Your task to perform on an android device: Open location settings Image 0: 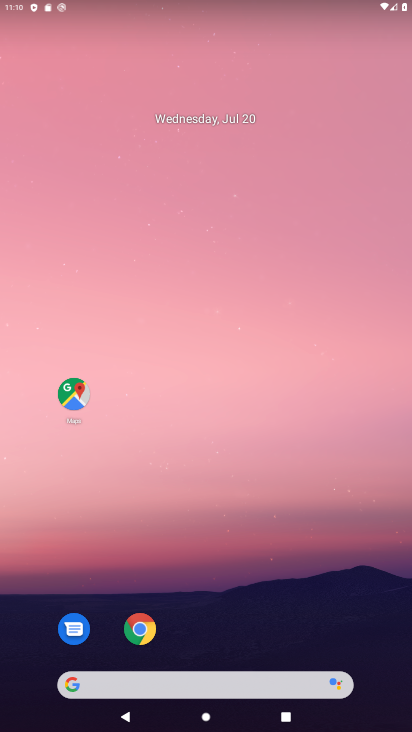
Step 0: drag from (221, 661) to (261, 3)
Your task to perform on an android device: Open location settings Image 1: 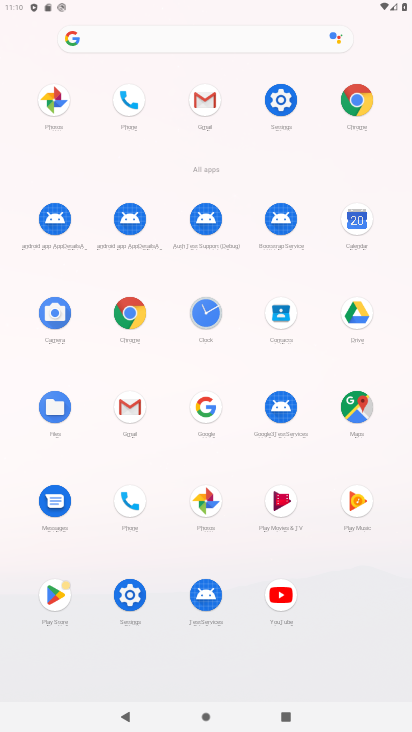
Step 1: click (289, 104)
Your task to perform on an android device: Open location settings Image 2: 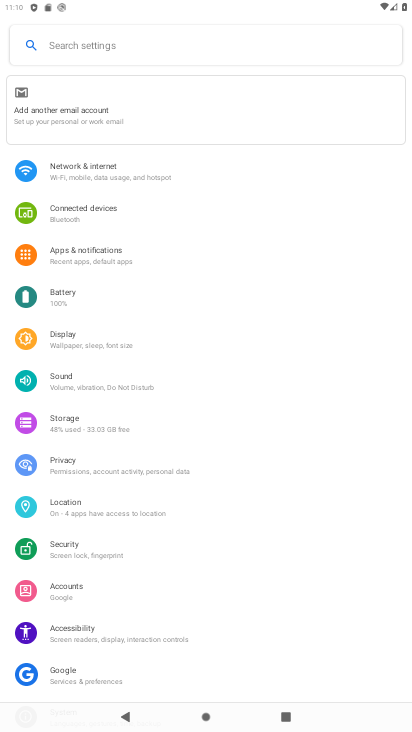
Step 2: click (112, 509)
Your task to perform on an android device: Open location settings Image 3: 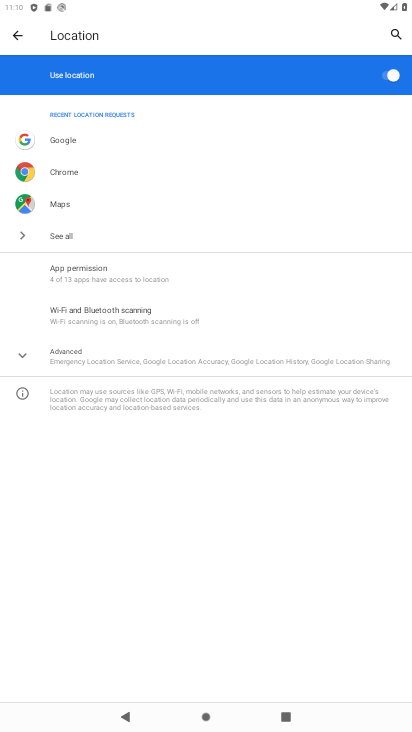
Step 3: task complete